Your task to perform on an android device: Search for vegetarian restaurants on Maps Image 0: 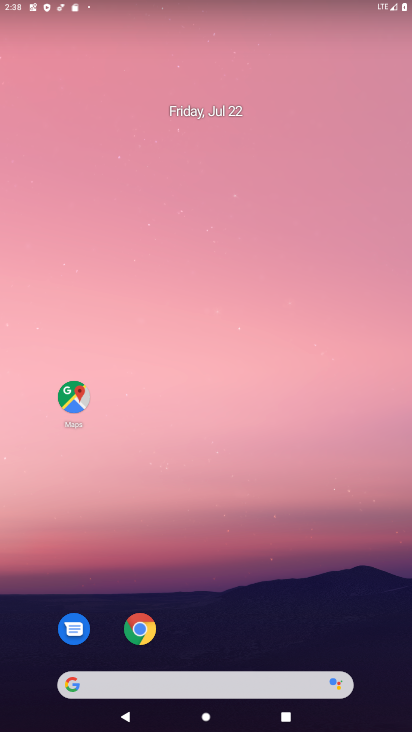
Step 0: click (71, 413)
Your task to perform on an android device: Search for vegetarian restaurants on Maps Image 1: 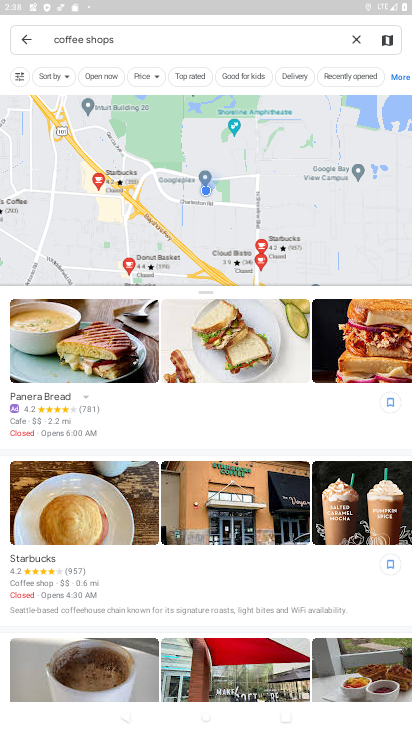
Step 1: click (351, 40)
Your task to perform on an android device: Search for vegetarian restaurants on Maps Image 2: 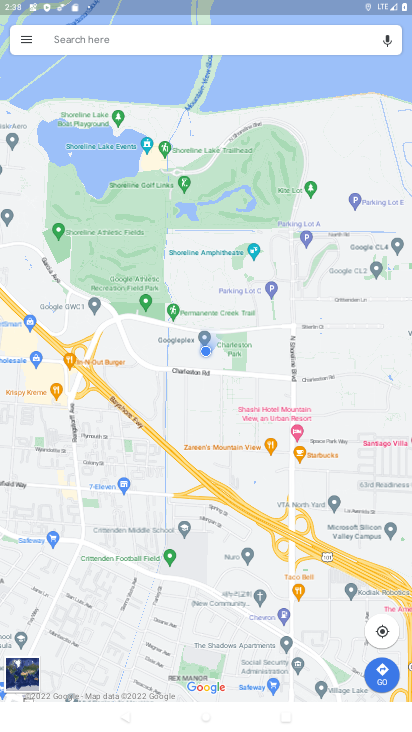
Step 2: click (159, 64)
Your task to perform on an android device: Search for vegetarian restaurants on Maps Image 3: 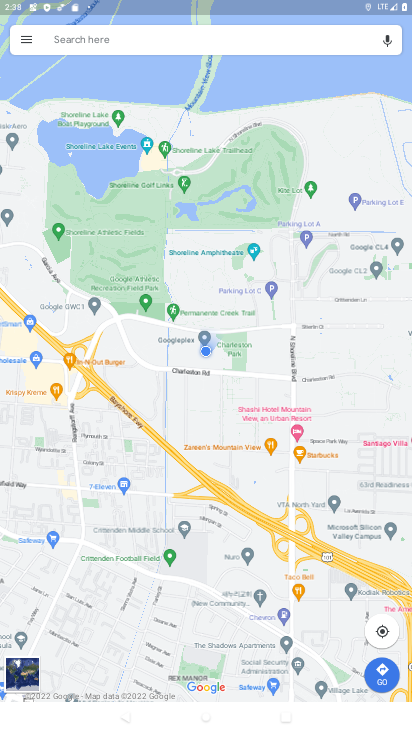
Step 3: click (136, 32)
Your task to perform on an android device: Search for vegetarian restaurants on Maps Image 4: 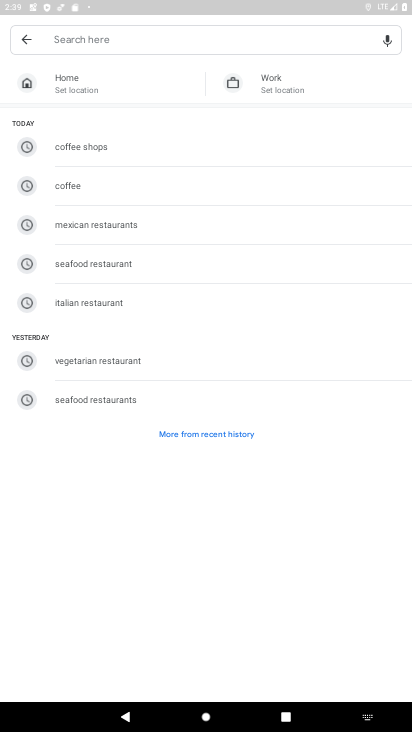
Step 4: type "veget"
Your task to perform on an android device: Search for vegetarian restaurants on Maps Image 5: 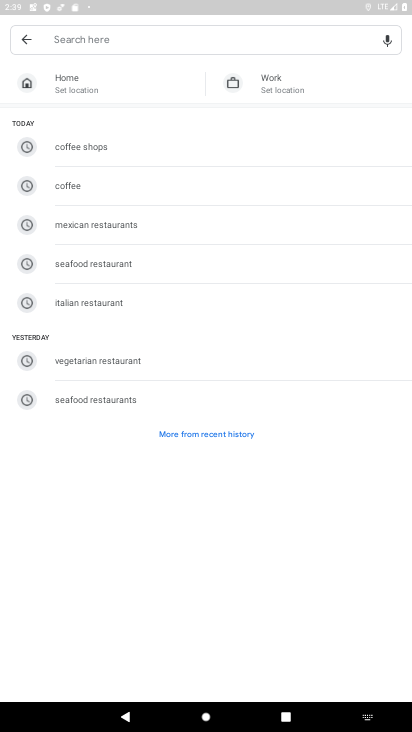
Step 5: click (148, 356)
Your task to perform on an android device: Search for vegetarian restaurants on Maps Image 6: 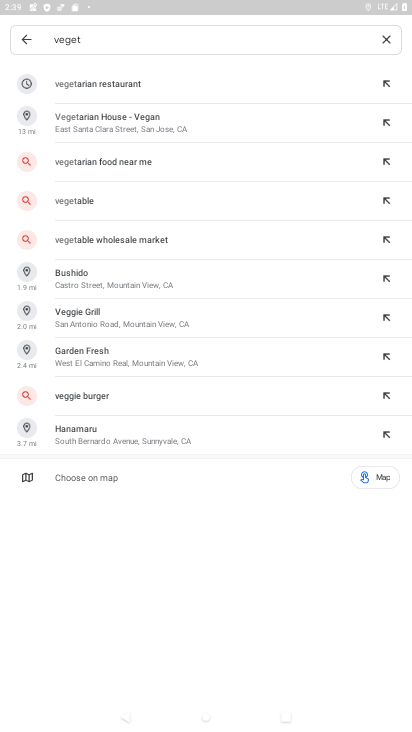
Step 6: click (140, 84)
Your task to perform on an android device: Search for vegetarian restaurants on Maps Image 7: 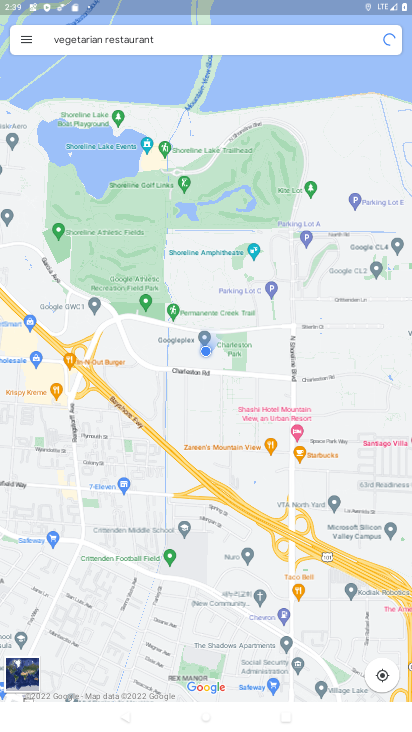
Step 7: task complete